Your task to perform on an android device: Open Google Chrome and open the bookmarks view Image 0: 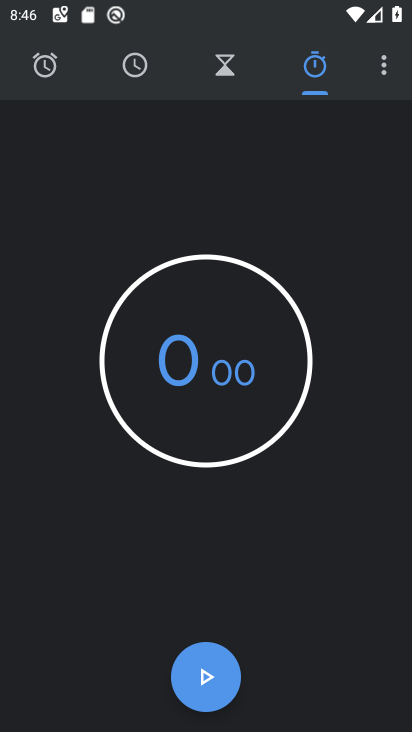
Step 0: press home button
Your task to perform on an android device: Open Google Chrome and open the bookmarks view Image 1: 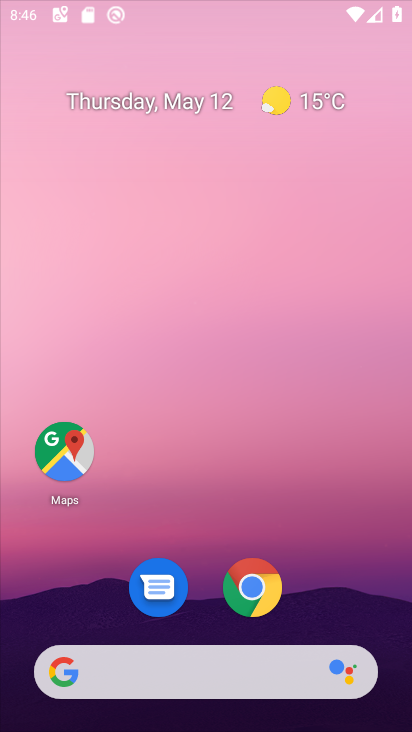
Step 1: drag from (404, 650) to (267, 85)
Your task to perform on an android device: Open Google Chrome and open the bookmarks view Image 2: 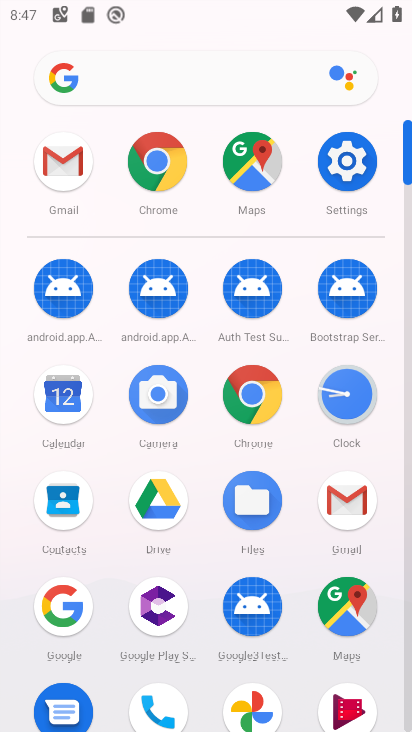
Step 2: click (248, 406)
Your task to perform on an android device: Open Google Chrome and open the bookmarks view Image 3: 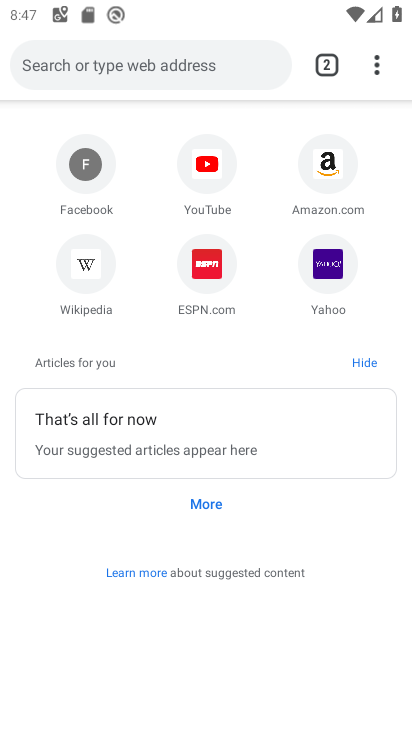
Step 3: click (376, 68)
Your task to perform on an android device: Open Google Chrome and open the bookmarks view Image 4: 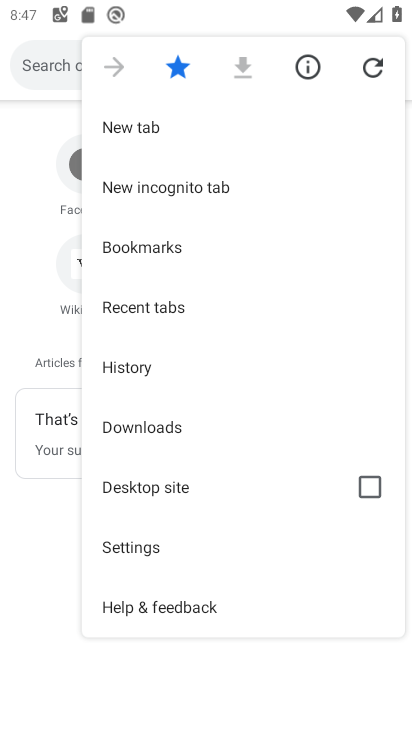
Step 4: click (211, 245)
Your task to perform on an android device: Open Google Chrome and open the bookmarks view Image 5: 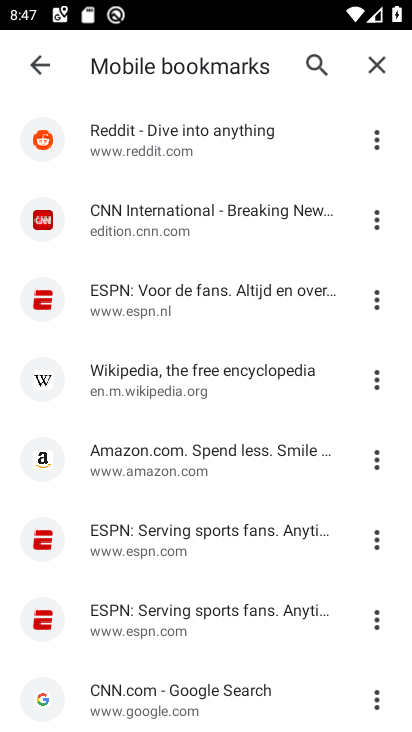
Step 5: task complete